Your task to perform on an android device: What is the recent news? Image 0: 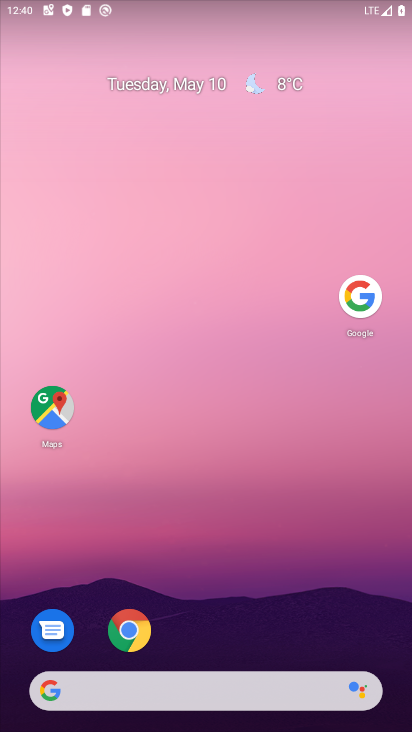
Step 0: press home button
Your task to perform on an android device: What is the recent news? Image 1: 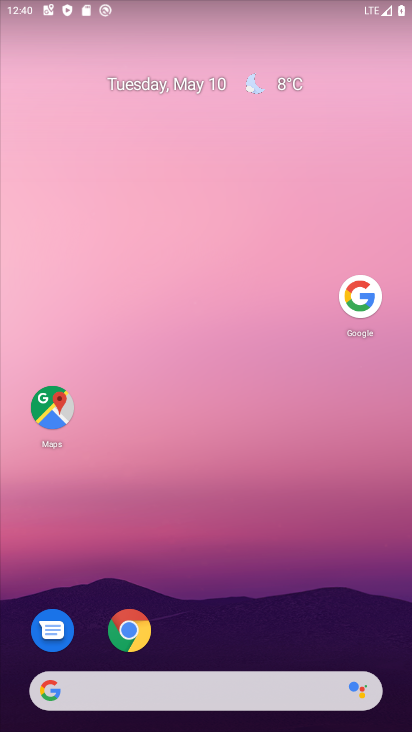
Step 1: click (55, 689)
Your task to perform on an android device: What is the recent news? Image 2: 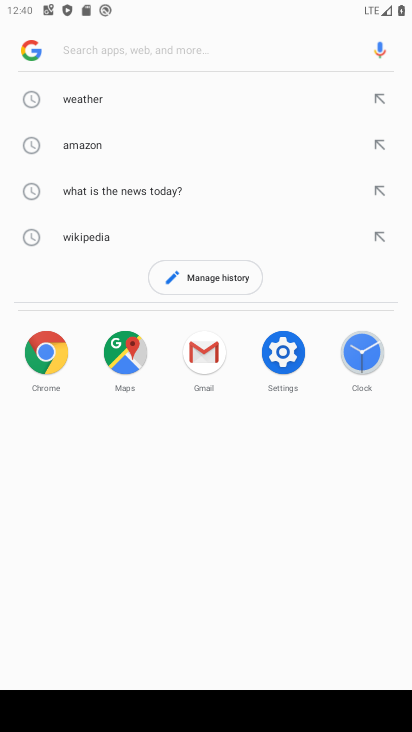
Step 2: click (113, 197)
Your task to perform on an android device: What is the recent news? Image 3: 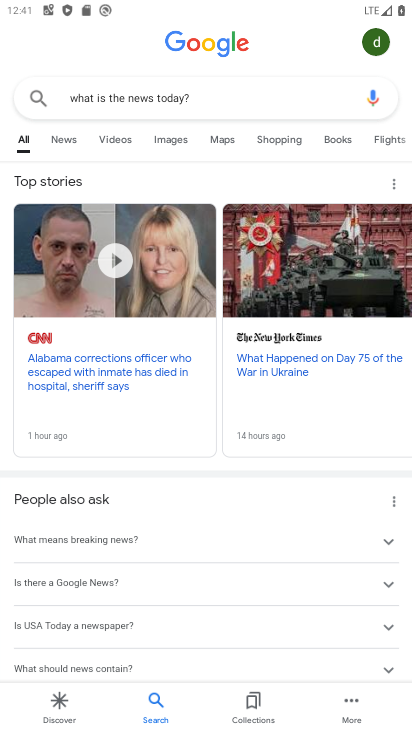
Step 3: click (60, 140)
Your task to perform on an android device: What is the recent news? Image 4: 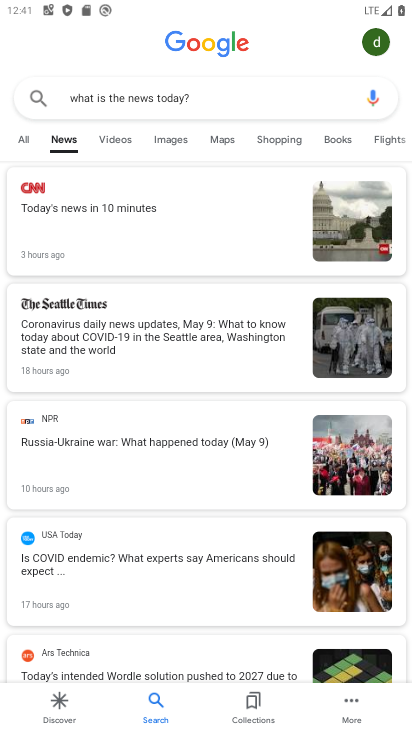
Step 4: click (158, 643)
Your task to perform on an android device: What is the recent news? Image 5: 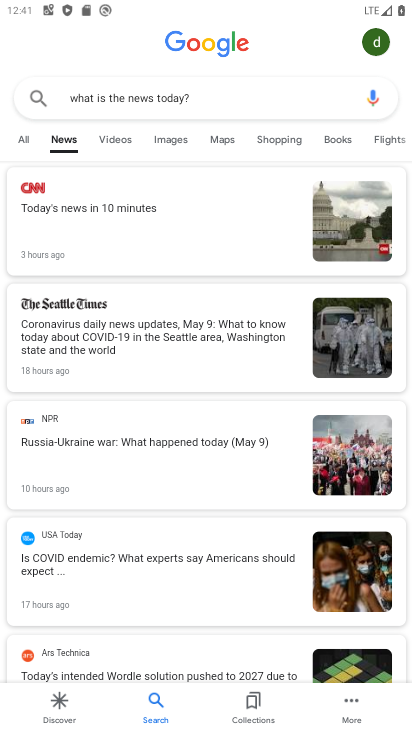
Step 5: task complete